Your task to perform on an android device: Go to Amazon Image 0: 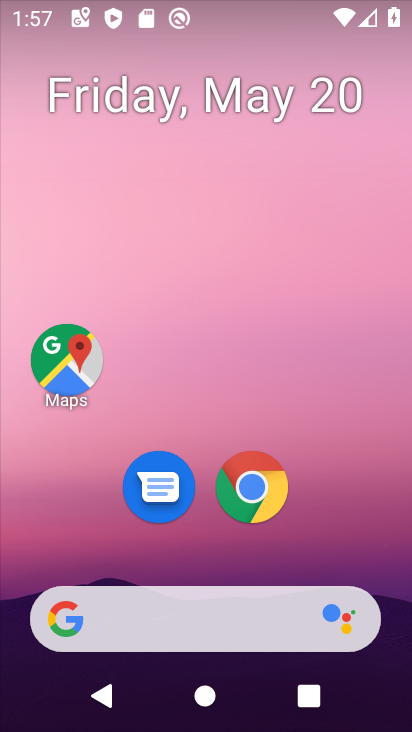
Step 0: click (267, 504)
Your task to perform on an android device: Go to Amazon Image 1: 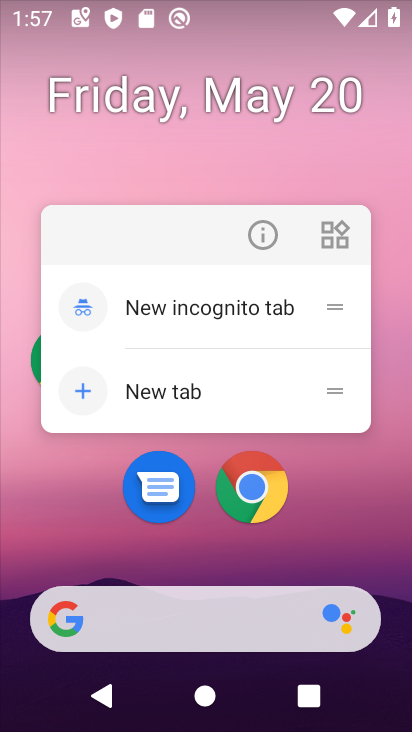
Step 1: click (244, 483)
Your task to perform on an android device: Go to Amazon Image 2: 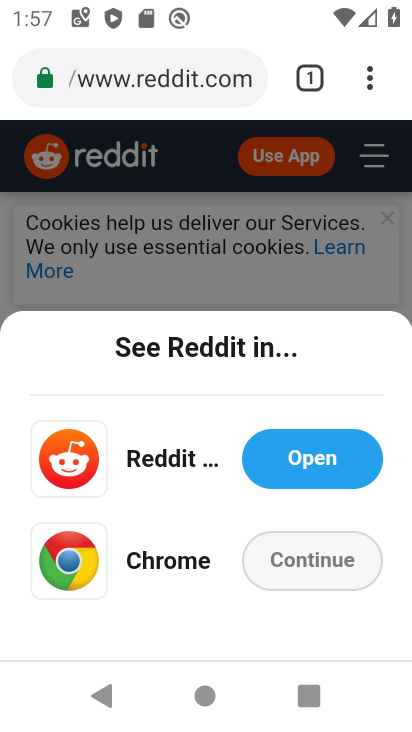
Step 2: click (231, 70)
Your task to perform on an android device: Go to Amazon Image 3: 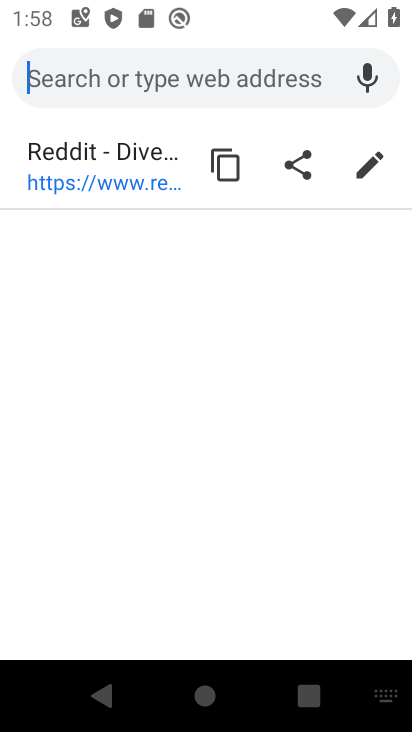
Step 3: type "amazon"
Your task to perform on an android device: Go to Amazon Image 4: 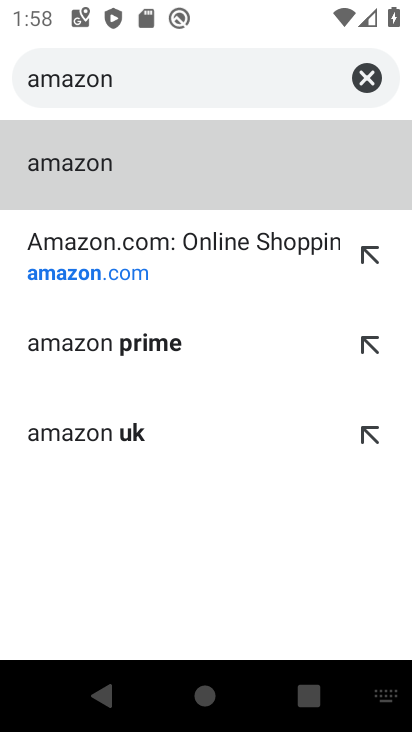
Step 4: click (119, 279)
Your task to perform on an android device: Go to Amazon Image 5: 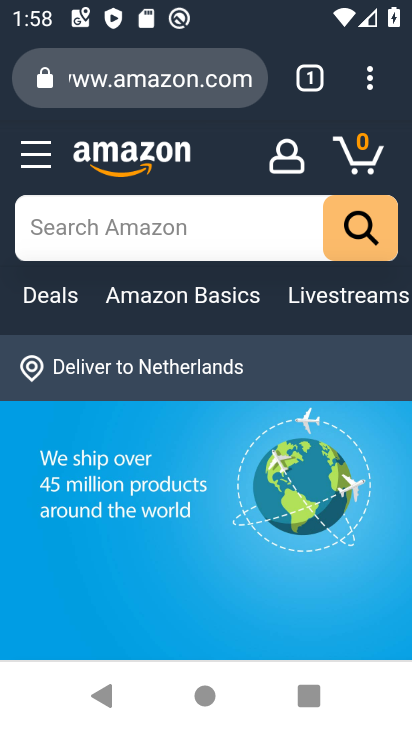
Step 5: task complete